Your task to perform on an android device: add a label to a message in the gmail app Image 0: 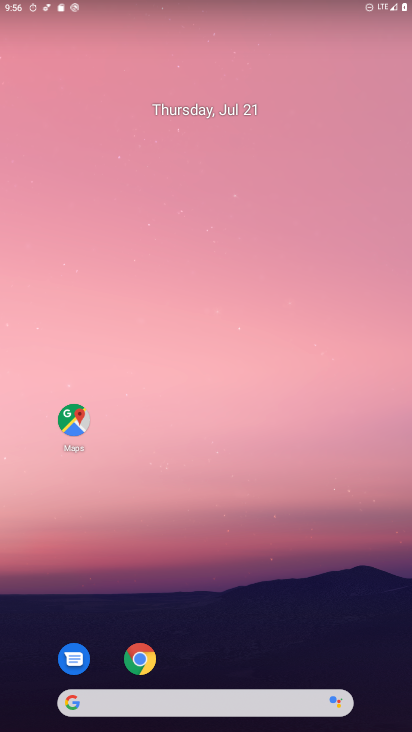
Step 0: drag from (268, 608) to (191, 107)
Your task to perform on an android device: add a label to a message in the gmail app Image 1: 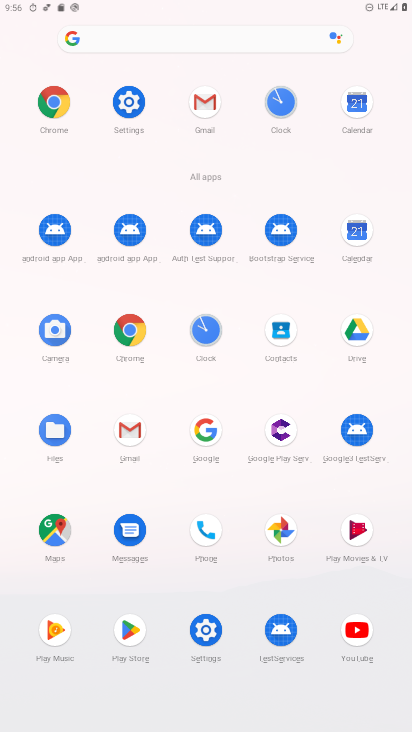
Step 1: click (135, 429)
Your task to perform on an android device: add a label to a message in the gmail app Image 2: 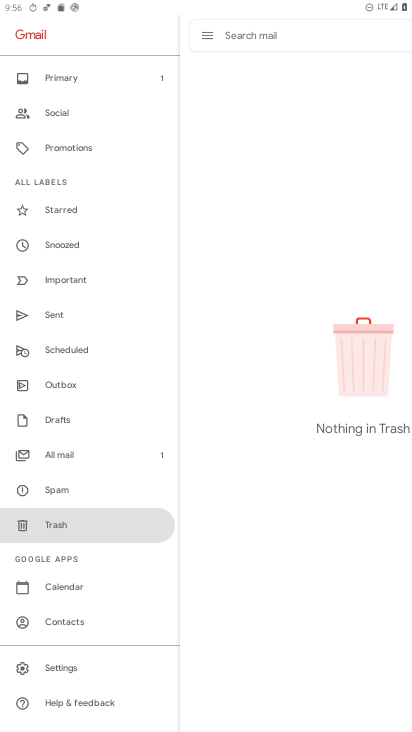
Step 2: click (71, 451)
Your task to perform on an android device: add a label to a message in the gmail app Image 3: 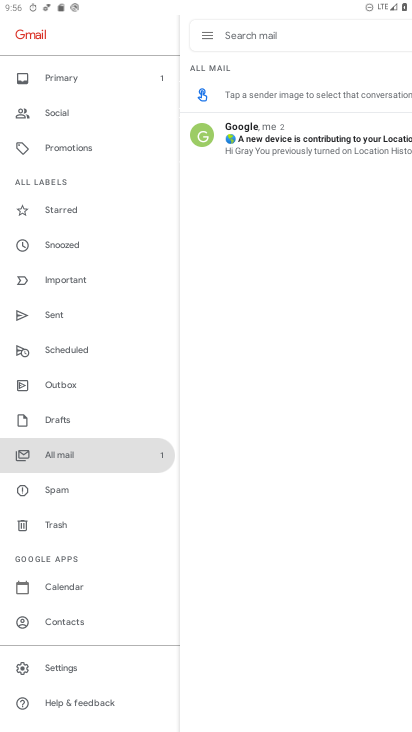
Step 3: click (350, 147)
Your task to perform on an android device: add a label to a message in the gmail app Image 4: 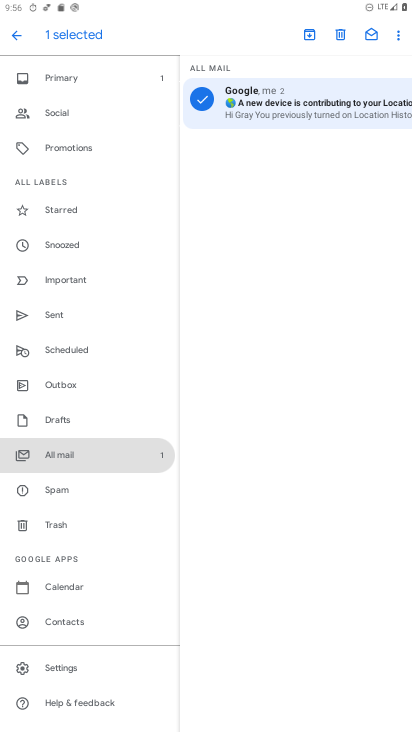
Step 4: click (396, 37)
Your task to perform on an android device: add a label to a message in the gmail app Image 5: 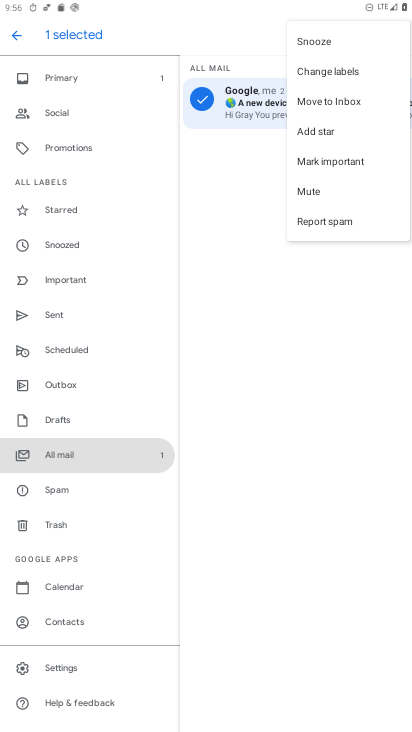
Step 5: click (323, 74)
Your task to perform on an android device: add a label to a message in the gmail app Image 6: 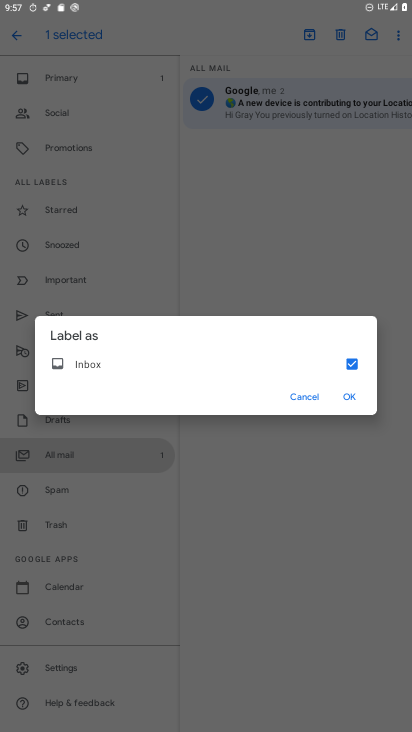
Step 6: task complete